Your task to perform on an android device: open app "Nova Launcher" (install if not already installed) and go to login screen Image 0: 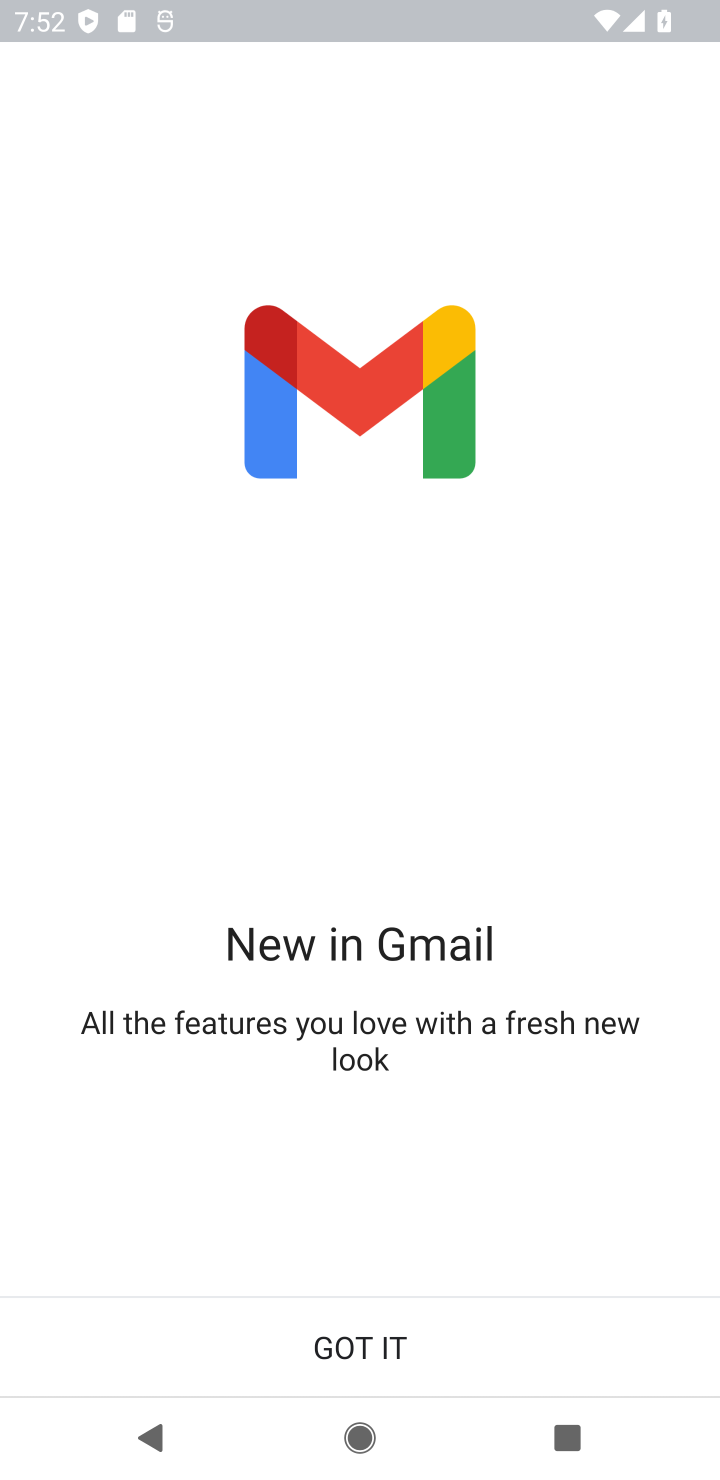
Step 0: press home button
Your task to perform on an android device: open app "Nova Launcher" (install if not already installed) and go to login screen Image 1: 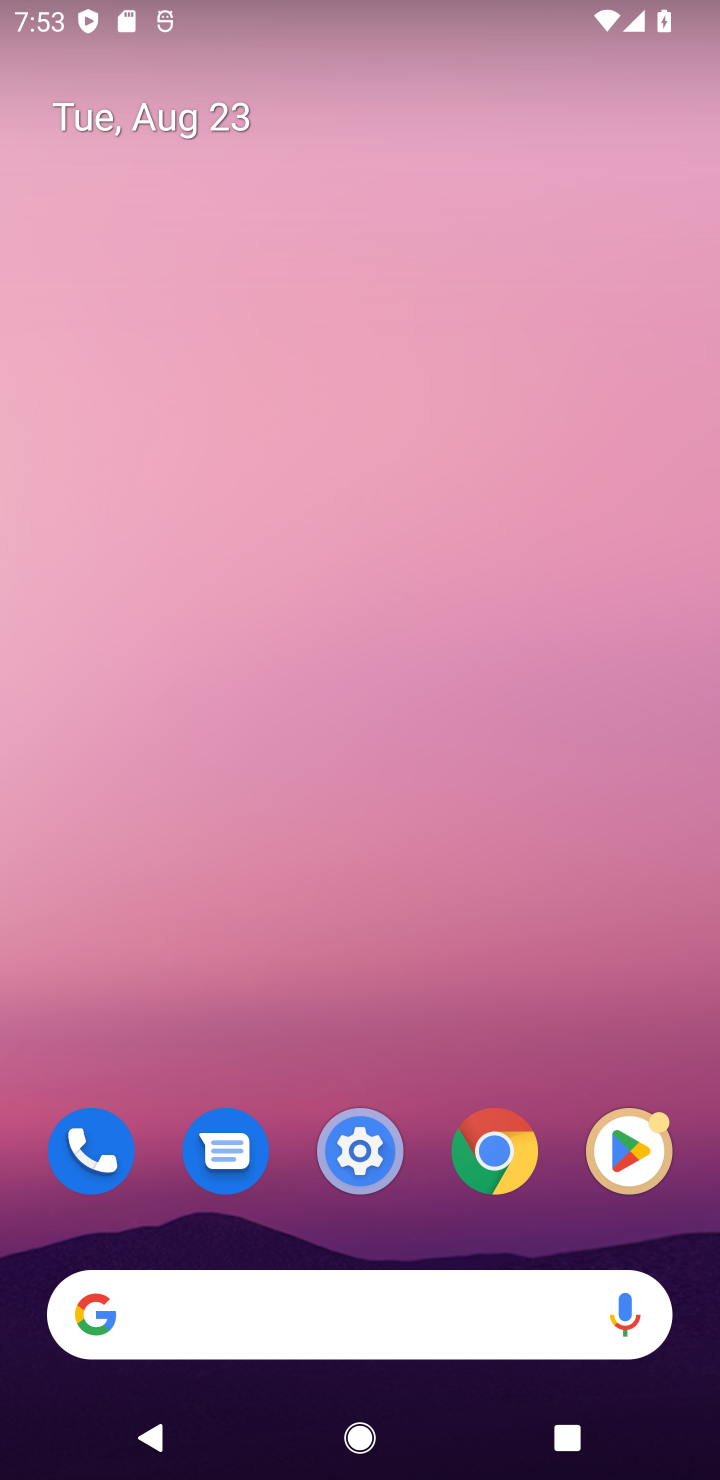
Step 1: click (629, 1145)
Your task to perform on an android device: open app "Nova Launcher" (install if not already installed) and go to login screen Image 2: 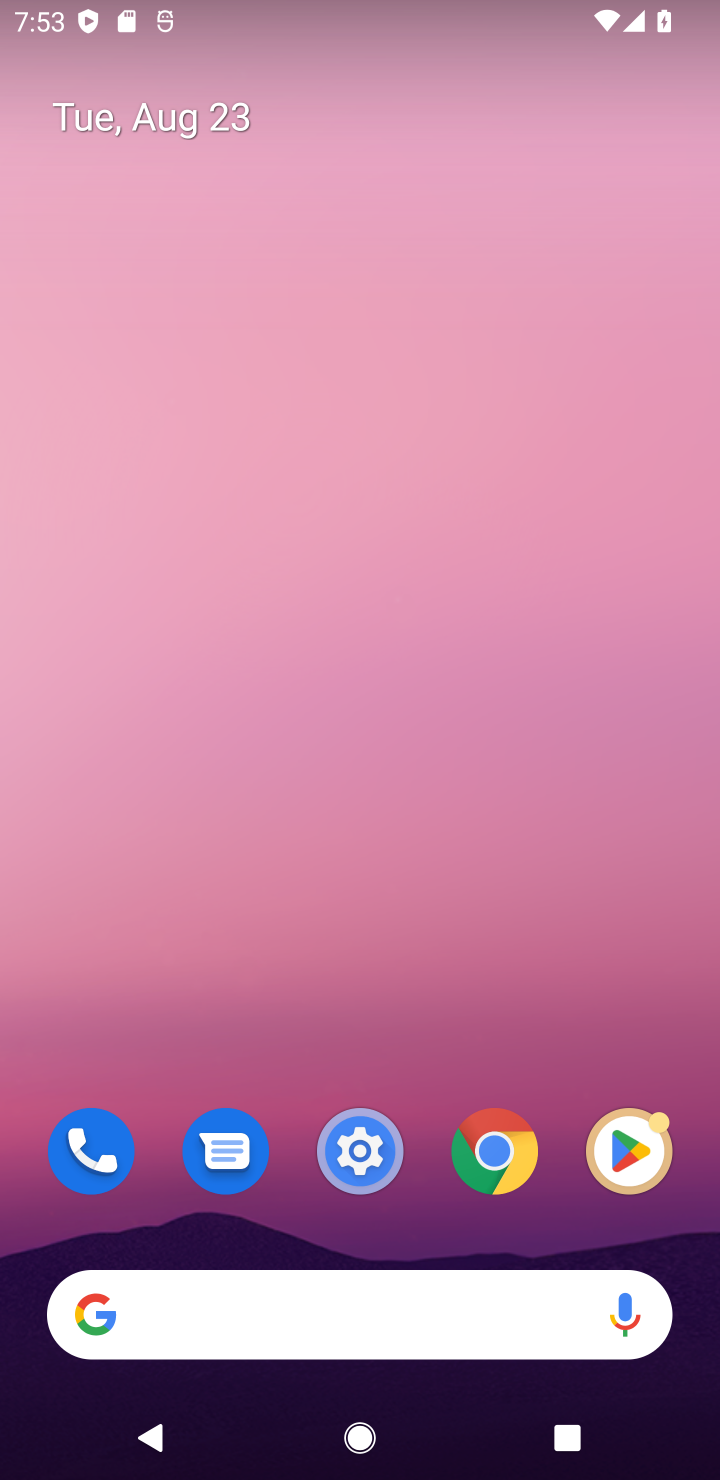
Step 2: click (615, 1146)
Your task to perform on an android device: open app "Nova Launcher" (install if not already installed) and go to login screen Image 3: 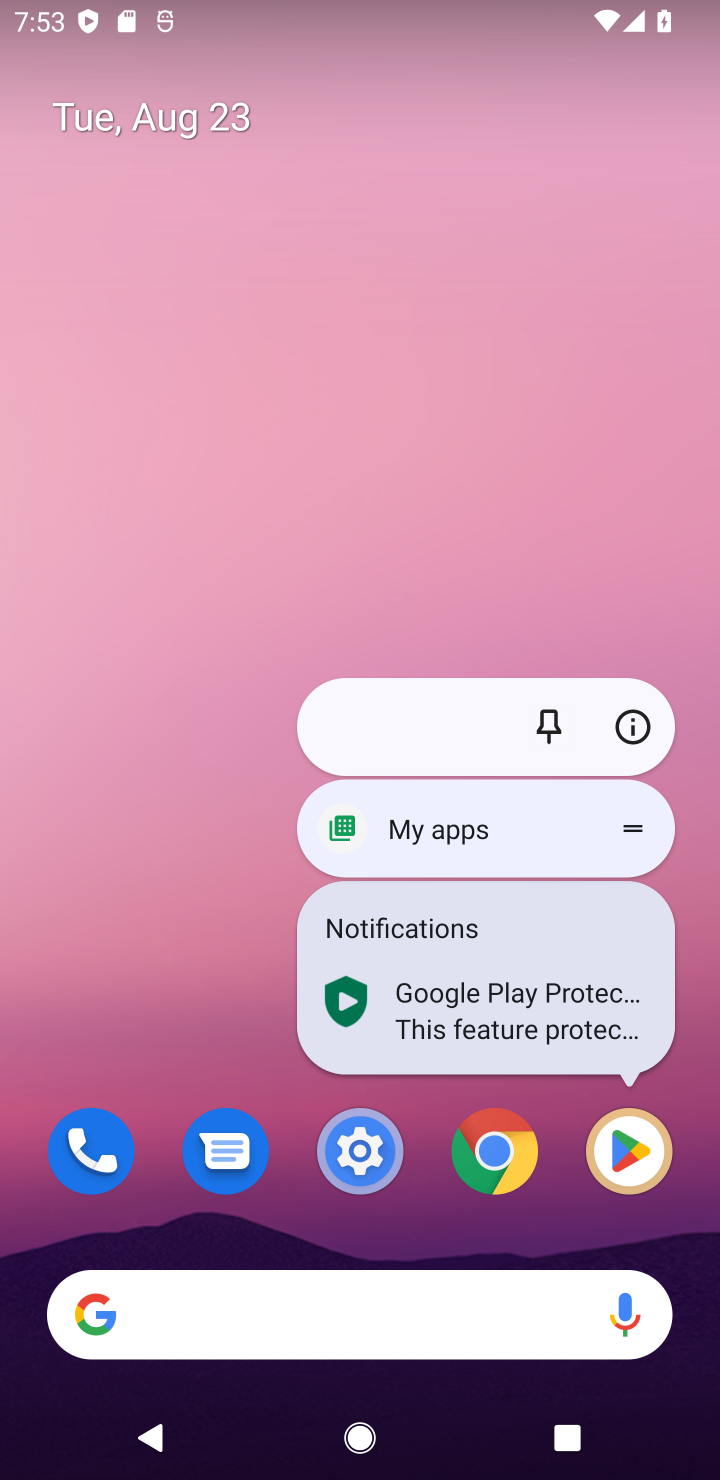
Step 3: click (250, 978)
Your task to perform on an android device: open app "Nova Launcher" (install if not already installed) and go to login screen Image 4: 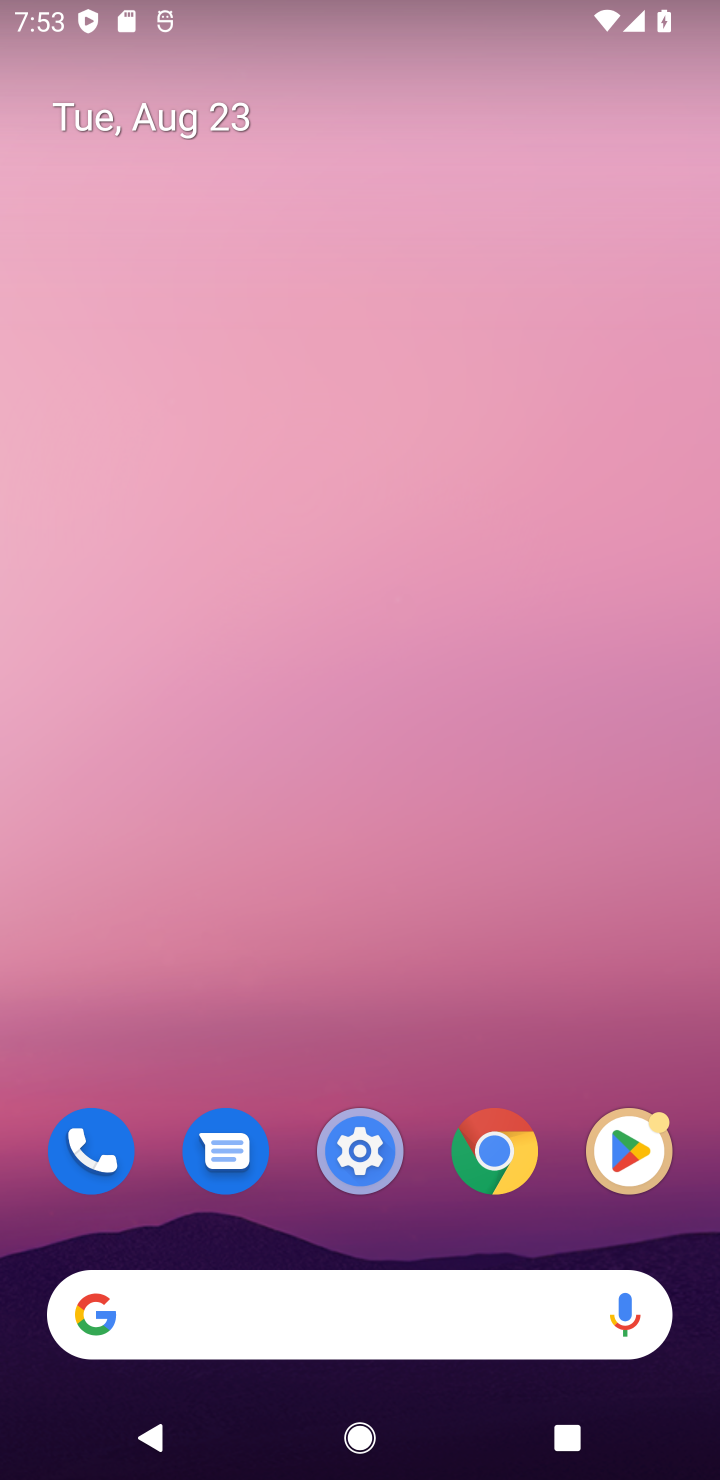
Step 4: click (608, 1146)
Your task to perform on an android device: open app "Nova Launcher" (install if not already installed) and go to login screen Image 5: 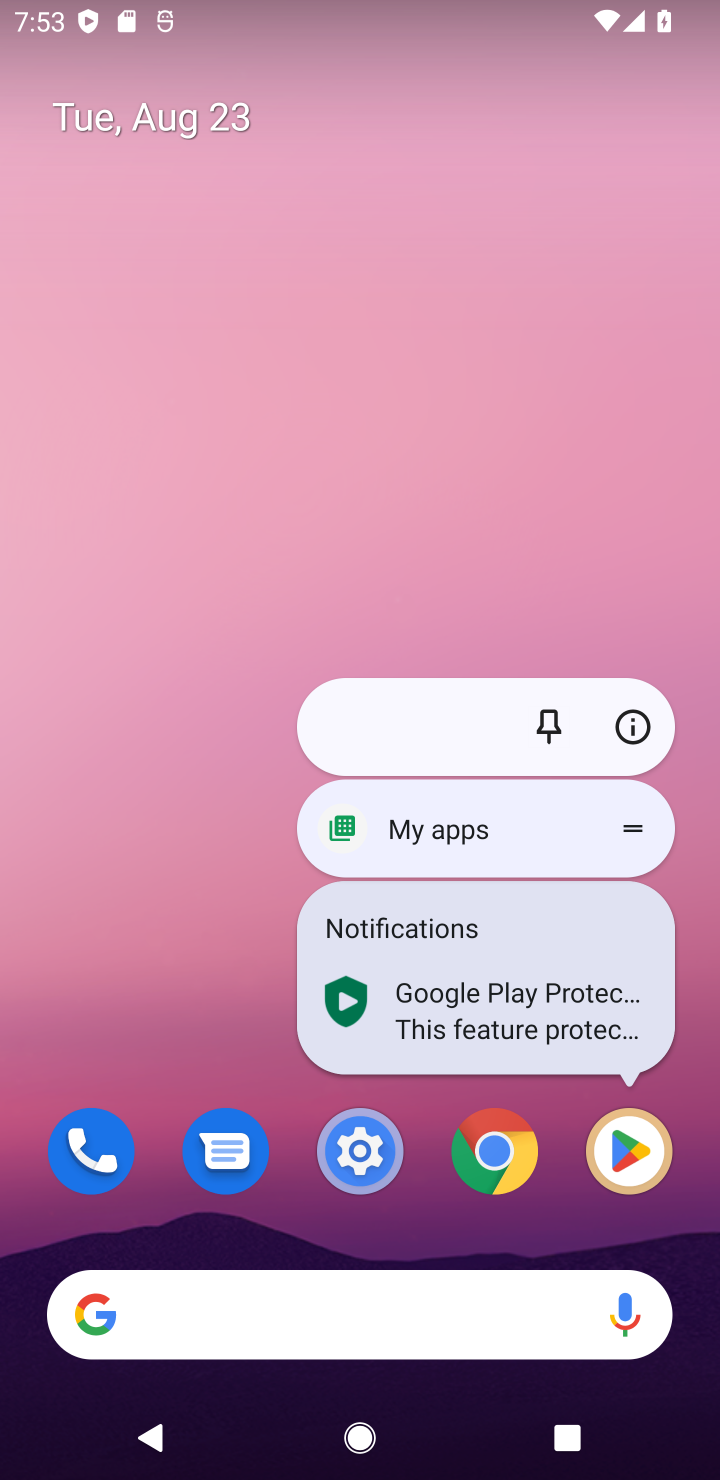
Step 5: click (271, 1017)
Your task to perform on an android device: open app "Nova Launcher" (install if not already installed) and go to login screen Image 6: 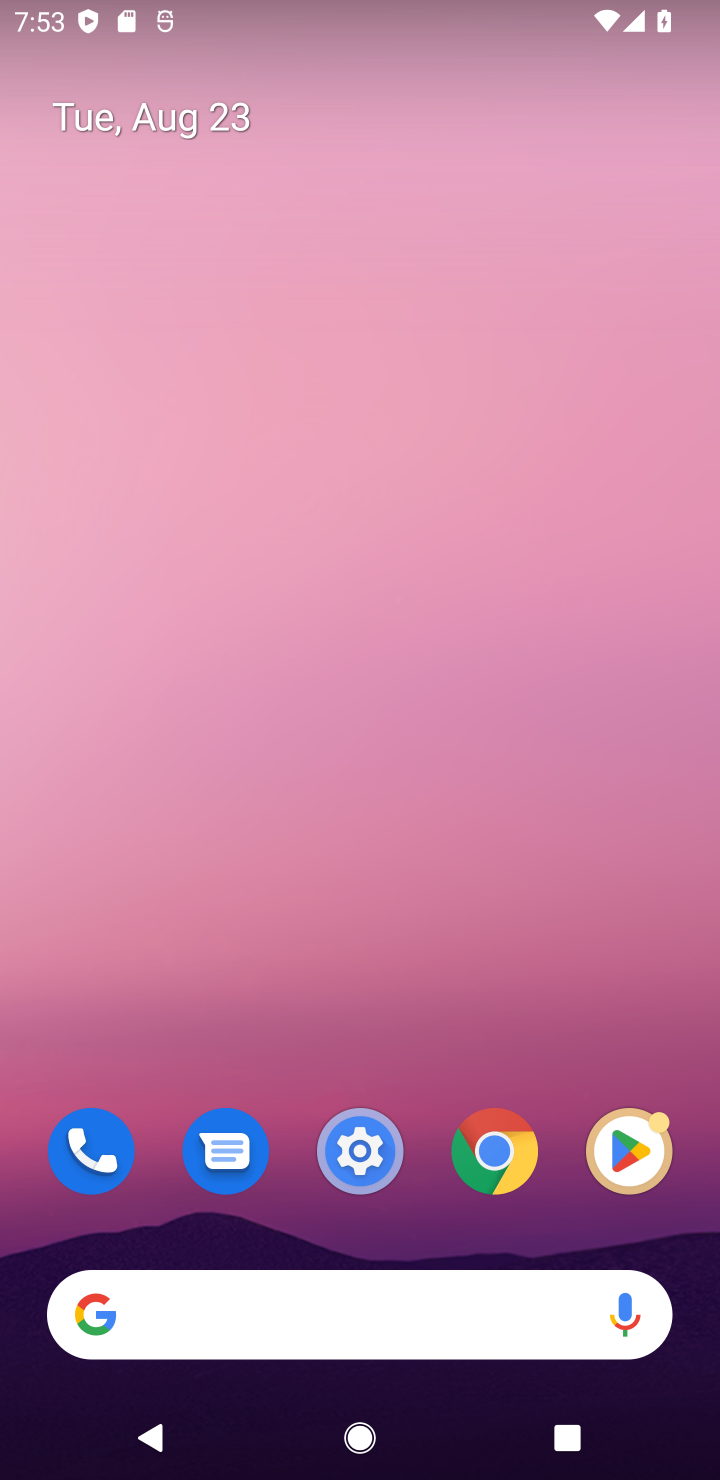
Step 6: drag from (403, 1097) to (389, 5)
Your task to perform on an android device: open app "Nova Launcher" (install if not already installed) and go to login screen Image 7: 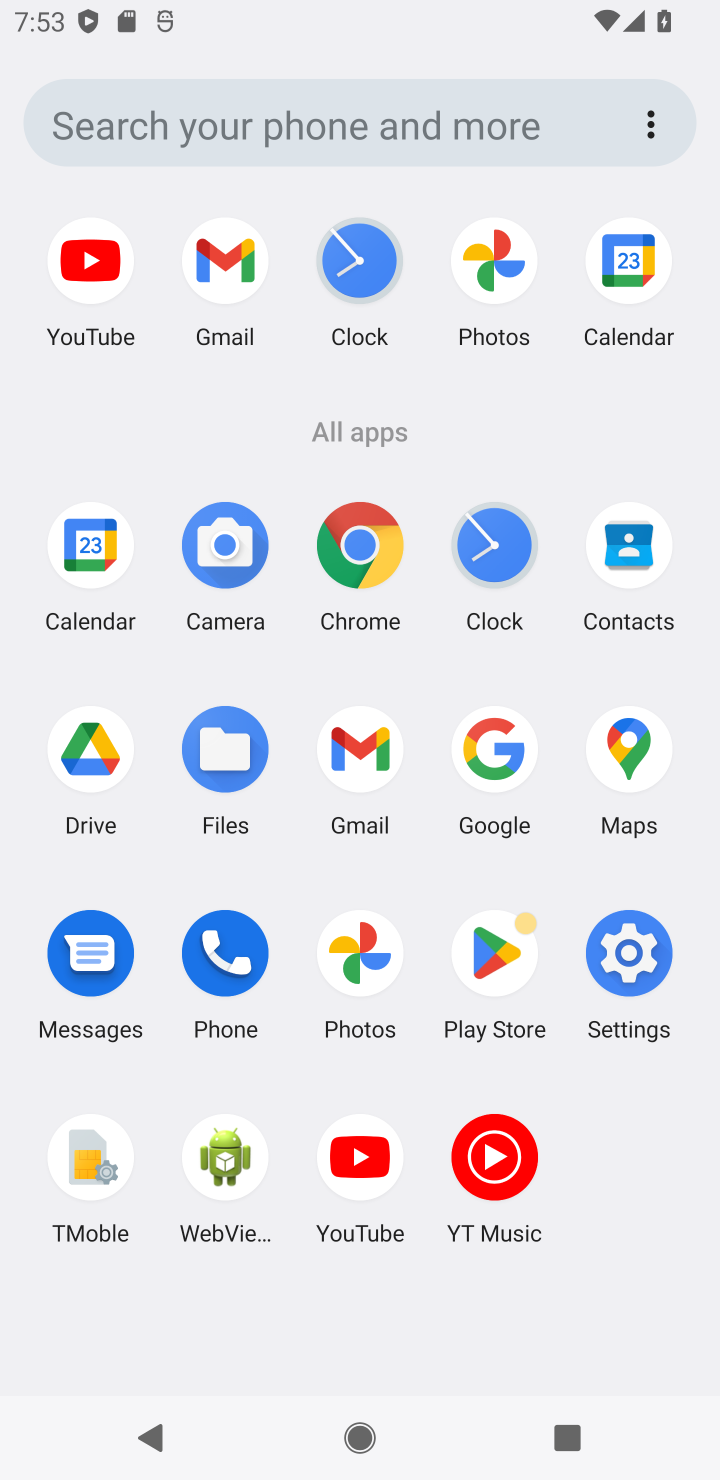
Step 7: click (479, 941)
Your task to perform on an android device: open app "Nova Launcher" (install if not already installed) and go to login screen Image 8: 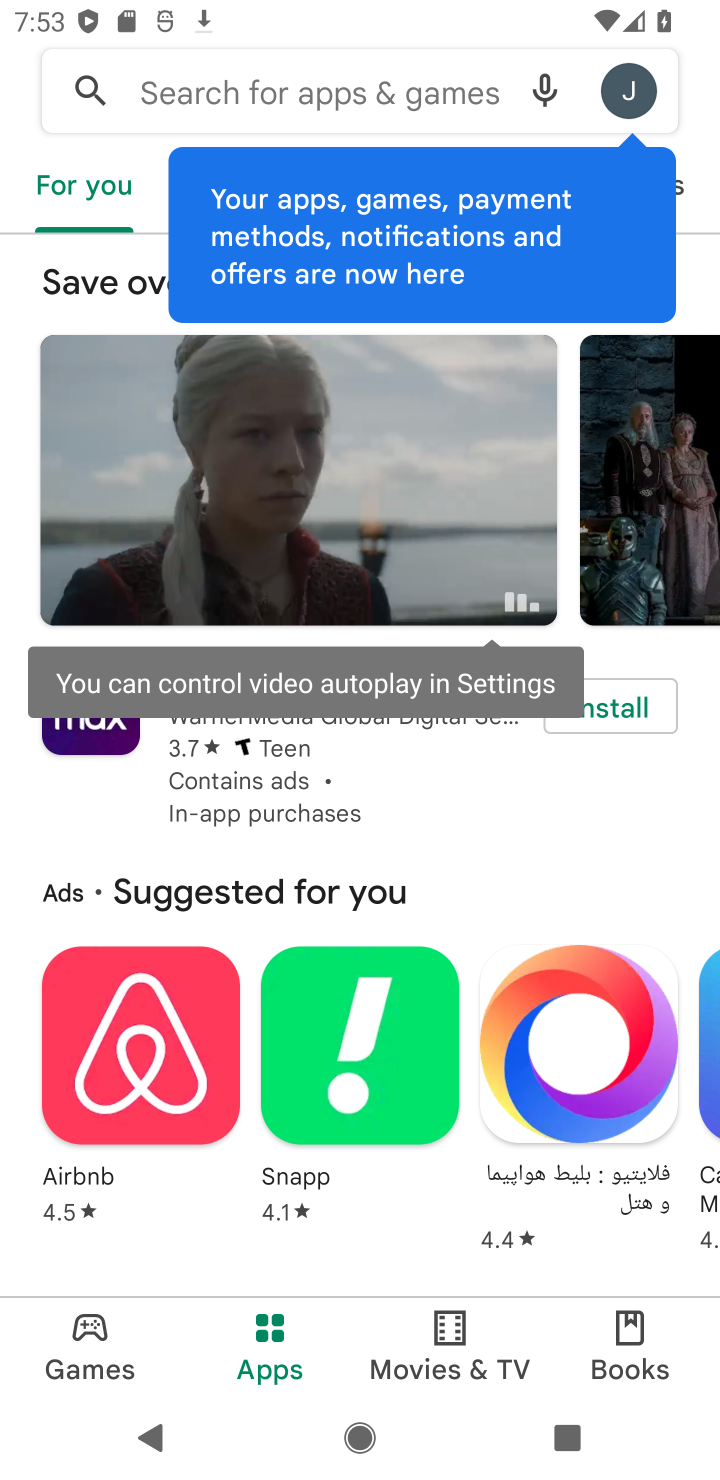
Step 8: click (241, 80)
Your task to perform on an android device: open app "Nova Launcher" (install if not already installed) and go to login screen Image 9: 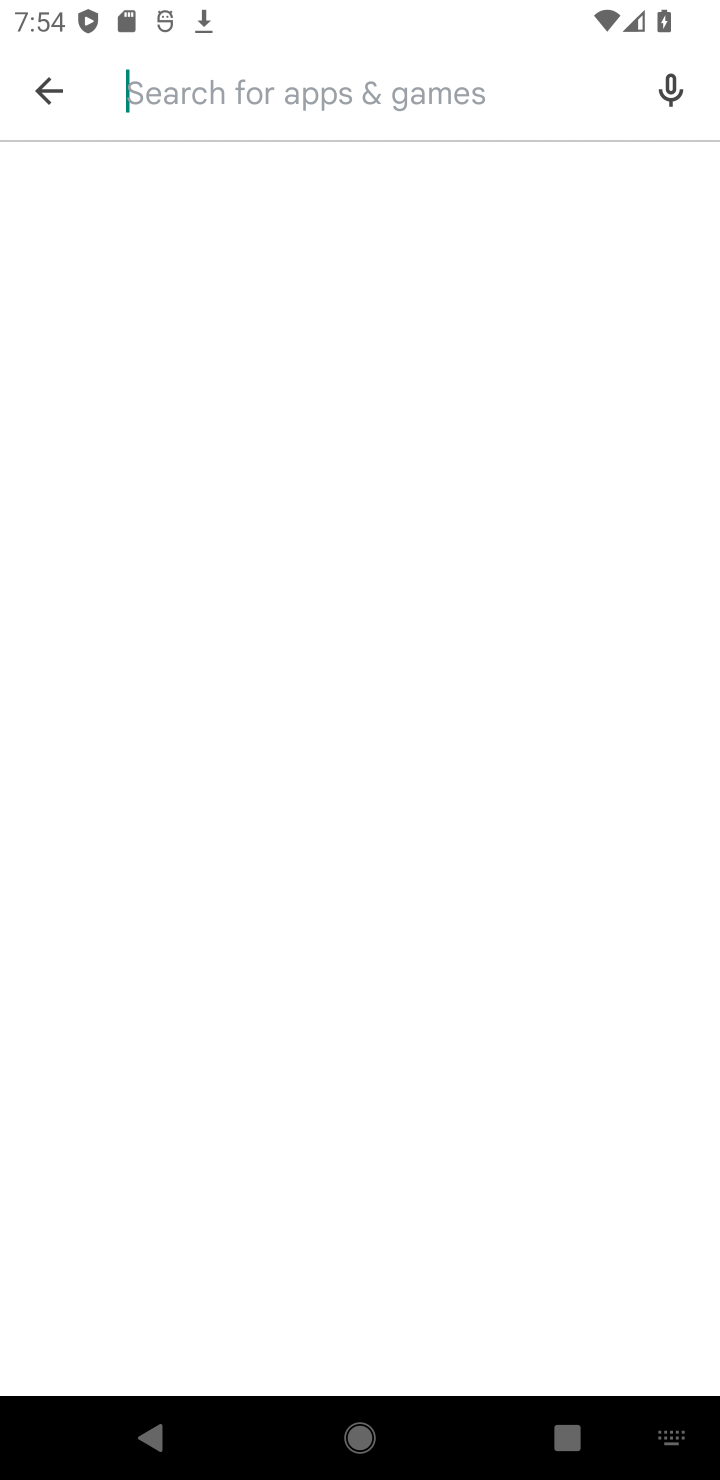
Step 9: type "Nova Launcher"
Your task to perform on an android device: open app "Nova Launcher" (install if not already installed) and go to login screen Image 10: 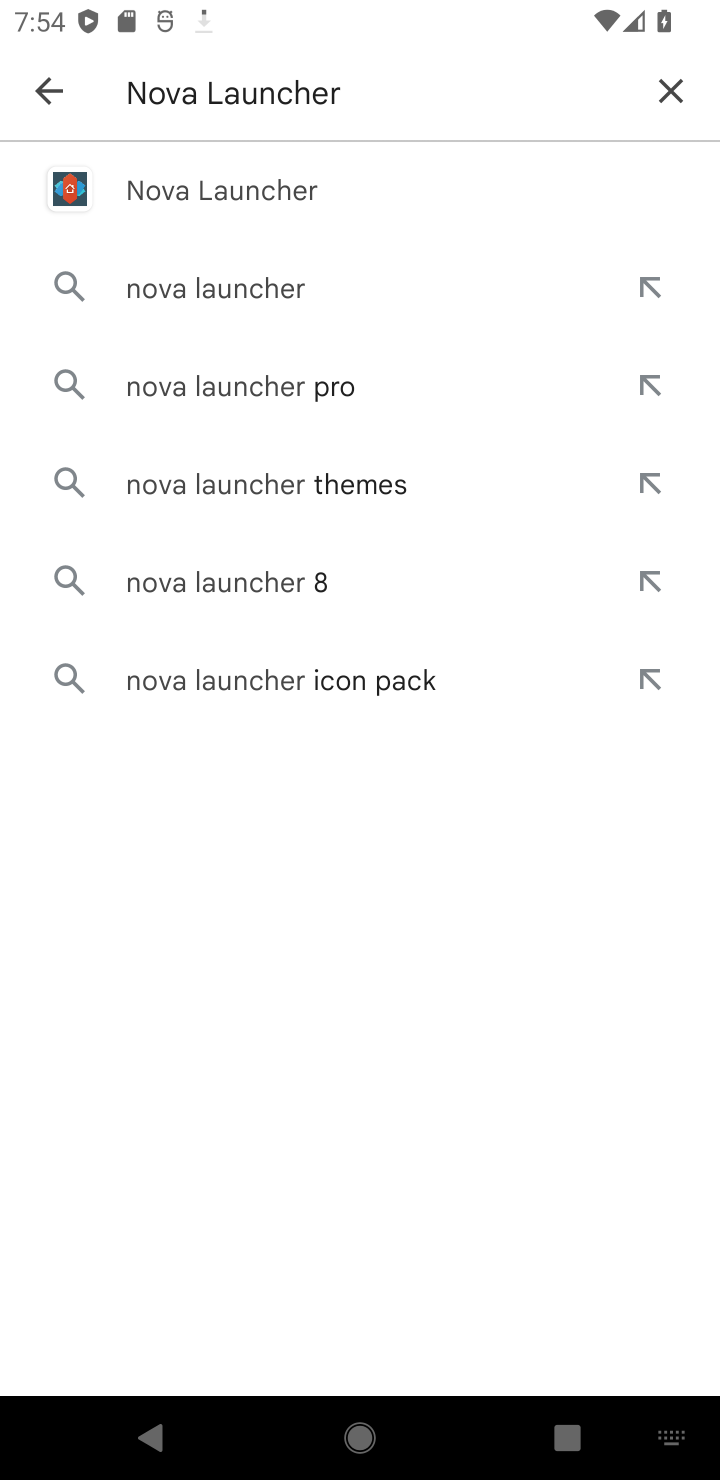
Step 10: click (246, 191)
Your task to perform on an android device: open app "Nova Launcher" (install if not already installed) and go to login screen Image 11: 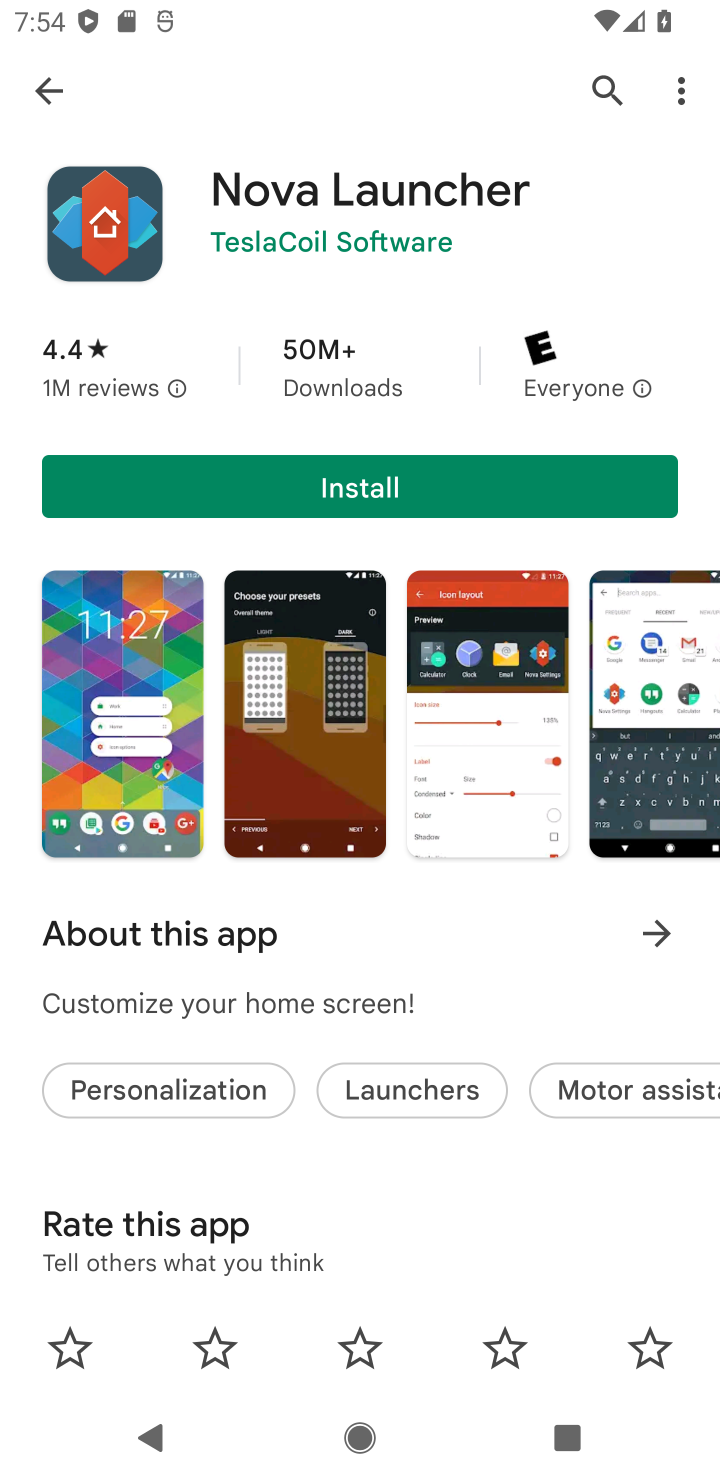
Step 11: click (373, 488)
Your task to perform on an android device: open app "Nova Launcher" (install if not already installed) and go to login screen Image 12: 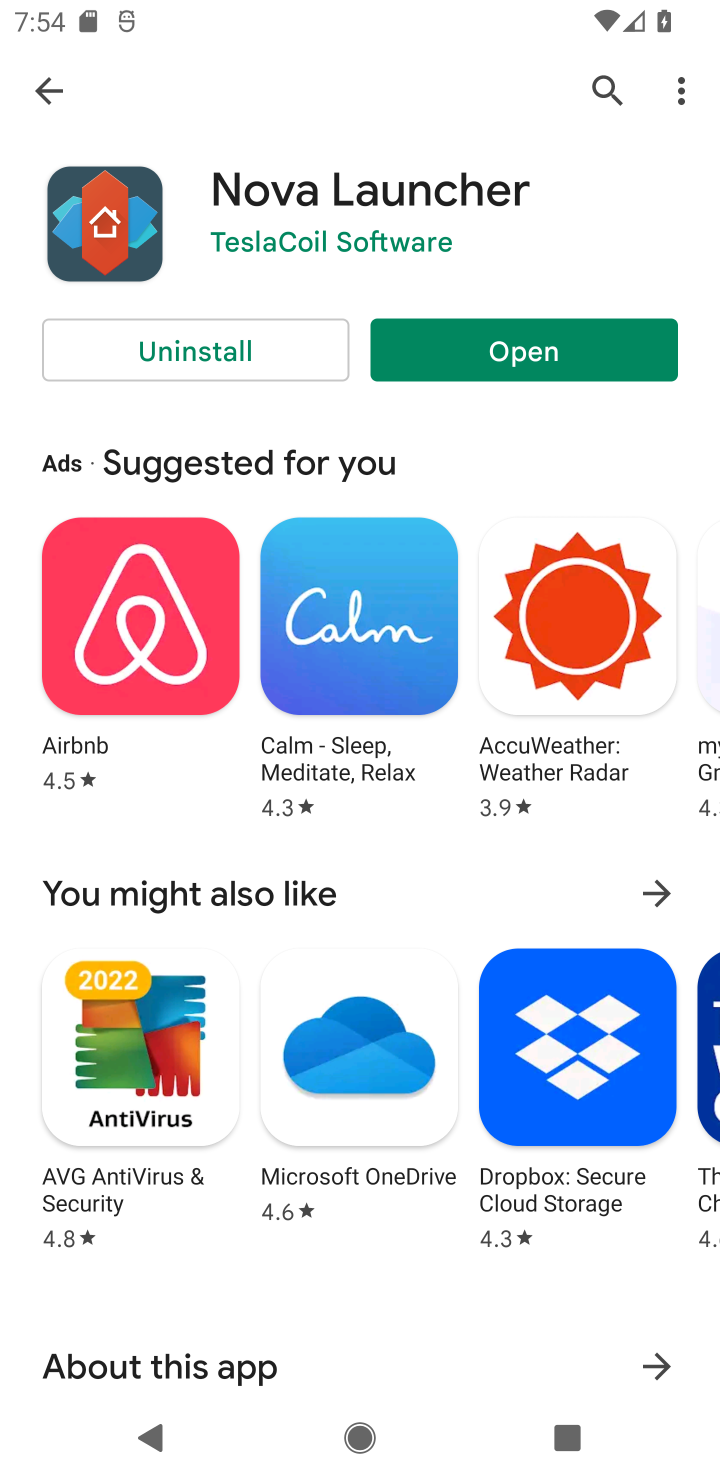
Step 12: click (559, 359)
Your task to perform on an android device: open app "Nova Launcher" (install if not already installed) and go to login screen Image 13: 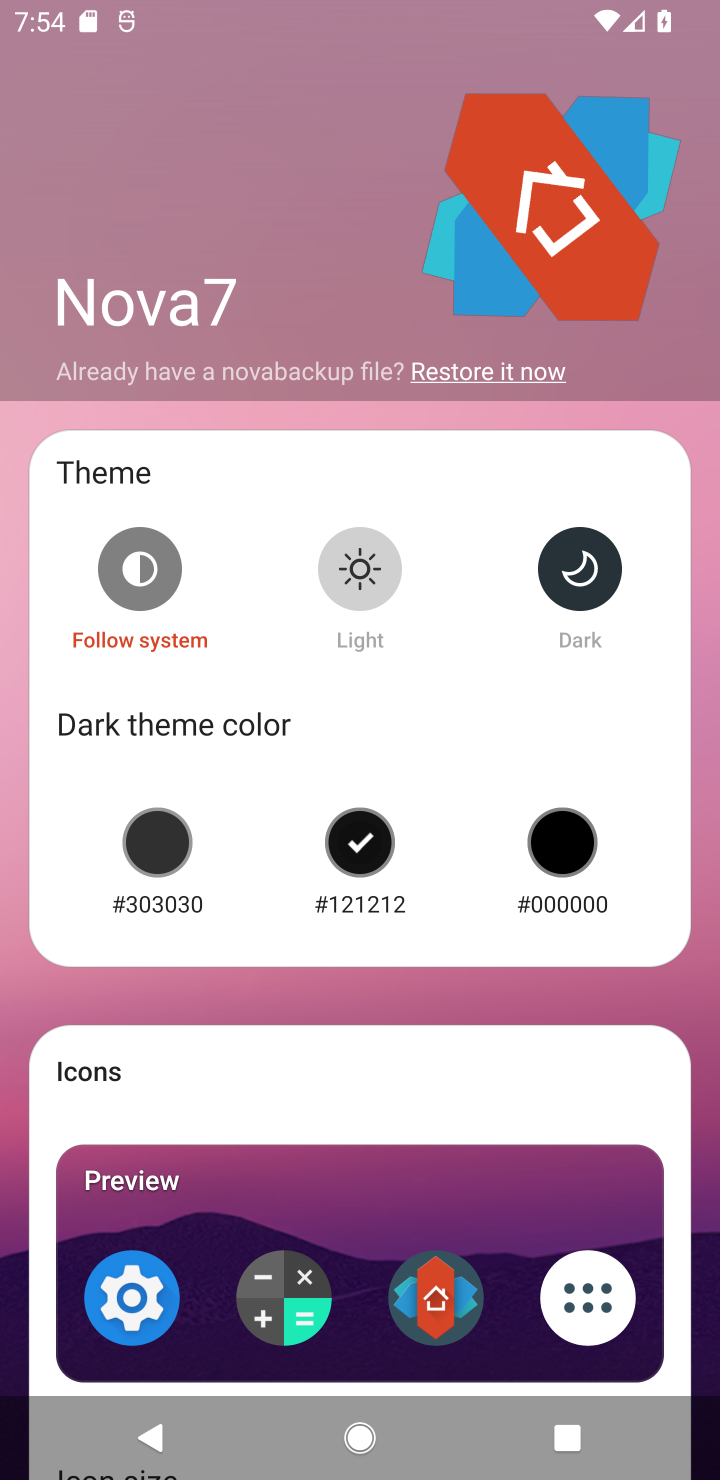
Step 13: task complete